Your task to perform on an android device: Search for pizza restaurants on Maps Image 0: 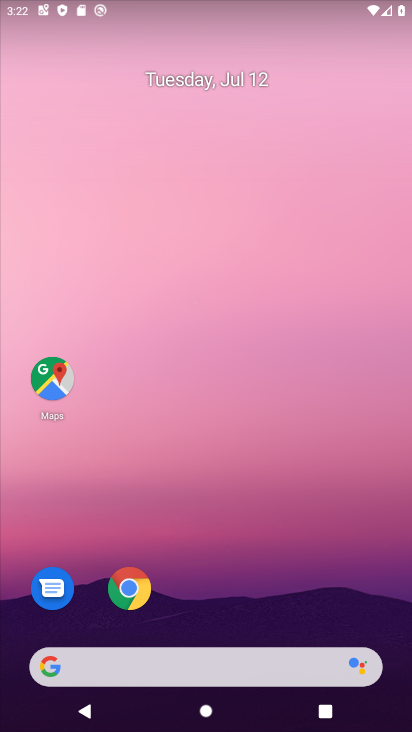
Step 0: click (61, 377)
Your task to perform on an android device: Search for pizza restaurants on Maps Image 1: 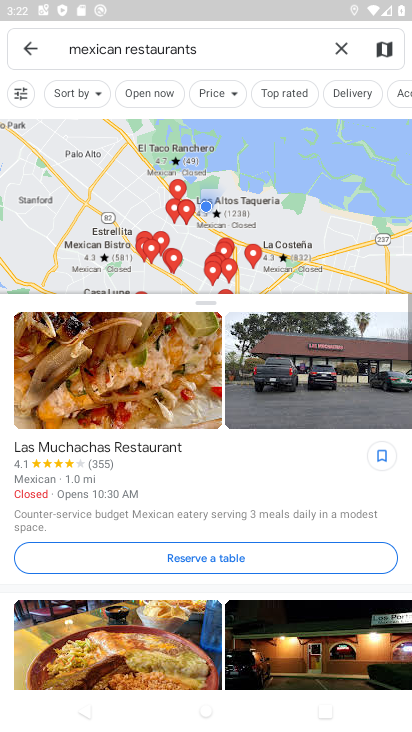
Step 1: click (231, 39)
Your task to perform on an android device: Search for pizza restaurants on Maps Image 2: 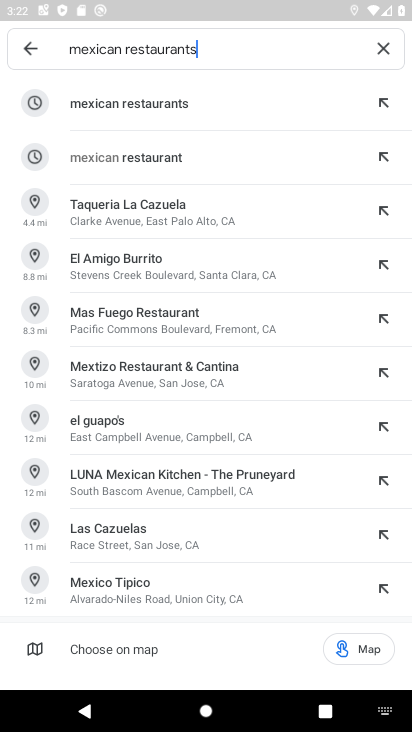
Step 2: click (388, 41)
Your task to perform on an android device: Search for pizza restaurants on Maps Image 3: 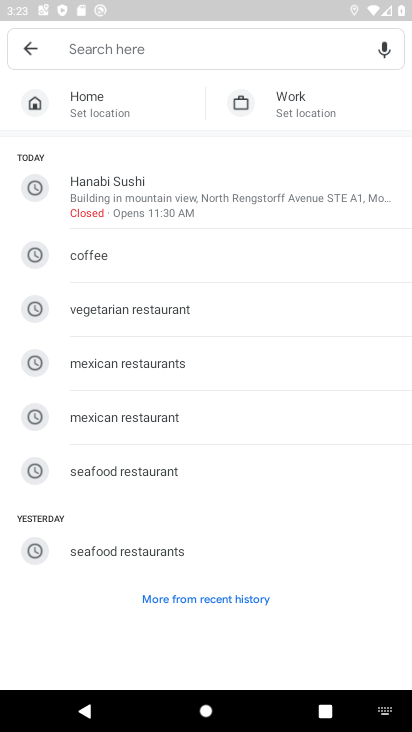
Step 3: type "pizza restaurants"
Your task to perform on an android device: Search for pizza restaurants on Maps Image 4: 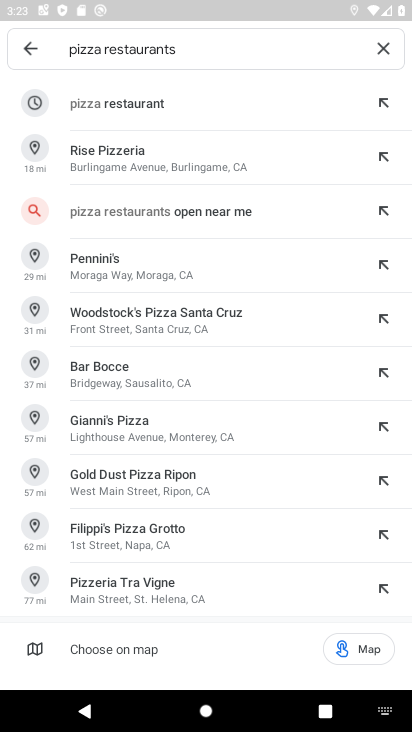
Step 4: click (223, 115)
Your task to perform on an android device: Search for pizza restaurants on Maps Image 5: 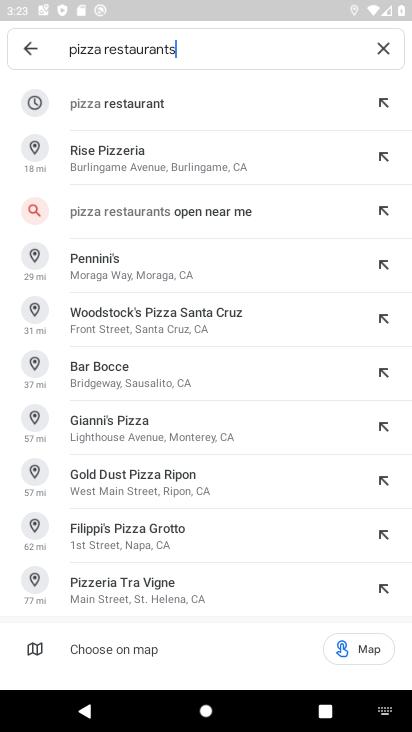
Step 5: click (223, 115)
Your task to perform on an android device: Search for pizza restaurants on Maps Image 6: 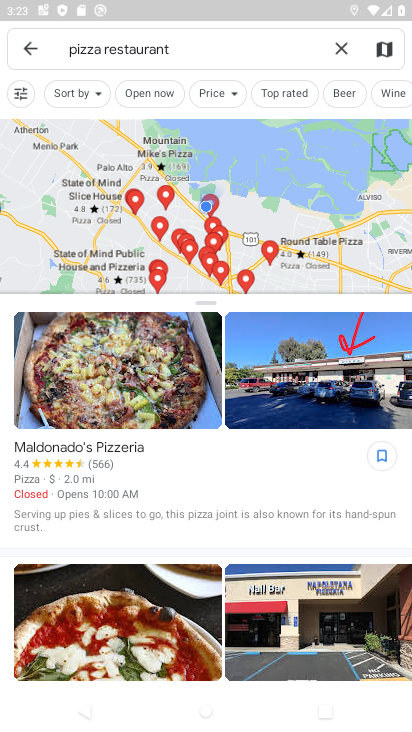
Step 6: task complete